Your task to perform on an android device: set default search engine in the chrome app Image 0: 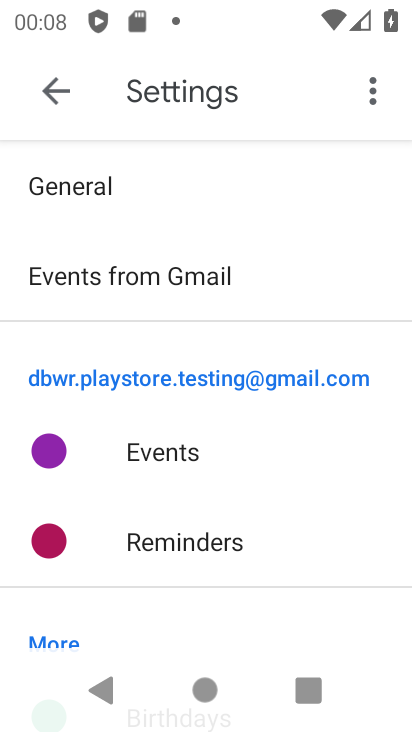
Step 0: click (45, 100)
Your task to perform on an android device: set default search engine in the chrome app Image 1: 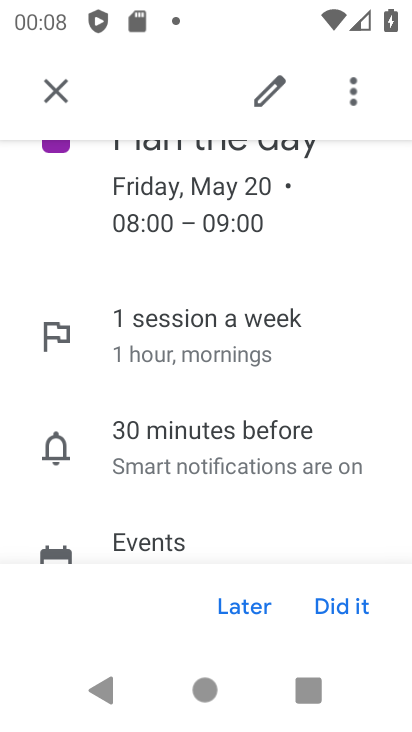
Step 1: press back button
Your task to perform on an android device: set default search engine in the chrome app Image 2: 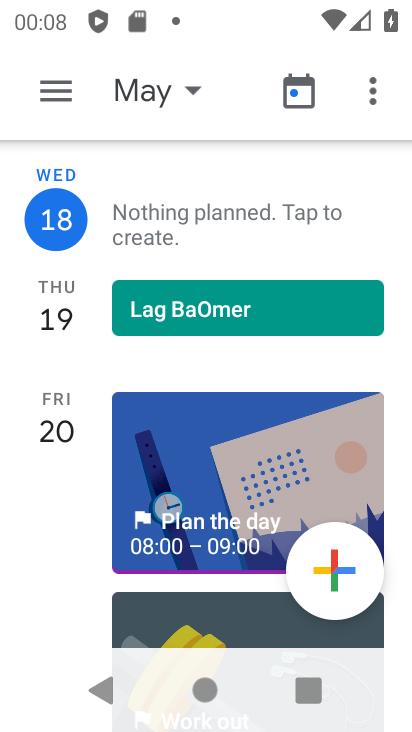
Step 2: press home button
Your task to perform on an android device: set default search engine in the chrome app Image 3: 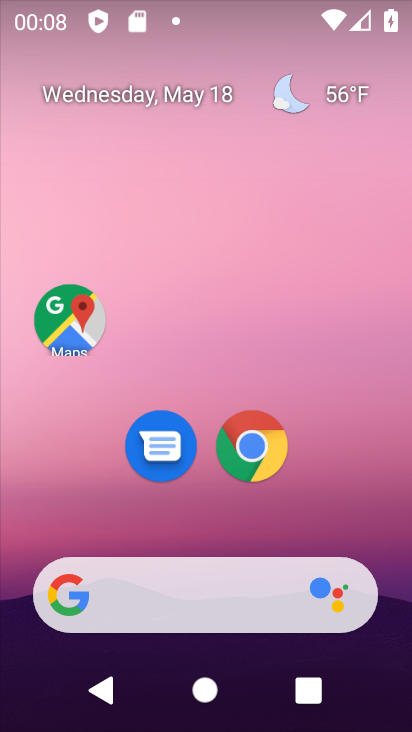
Step 3: drag from (288, 400) to (180, 158)
Your task to perform on an android device: set default search engine in the chrome app Image 4: 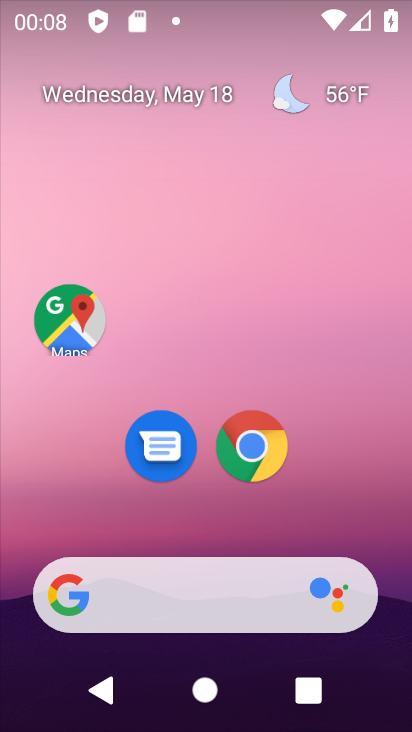
Step 4: drag from (390, 580) to (213, 130)
Your task to perform on an android device: set default search engine in the chrome app Image 5: 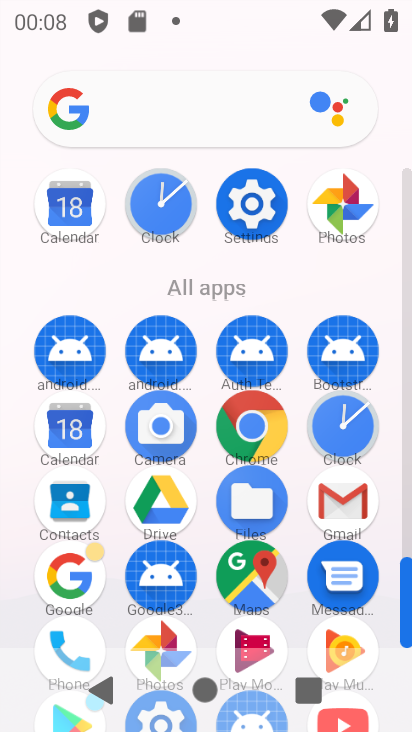
Step 5: click (247, 425)
Your task to perform on an android device: set default search engine in the chrome app Image 6: 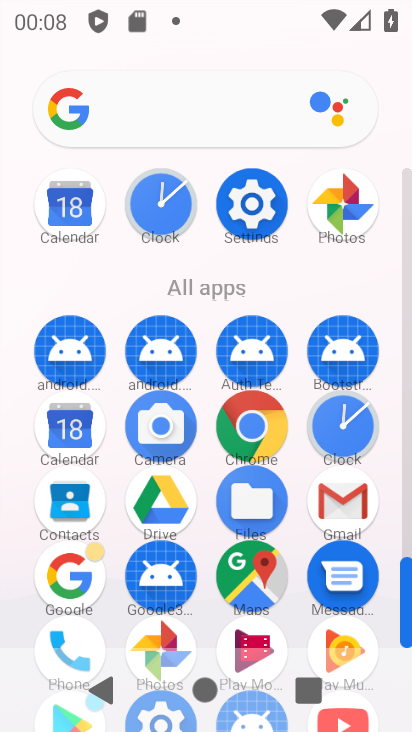
Step 6: click (247, 424)
Your task to perform on an android device: set default search engine in the chrome app Image 7: 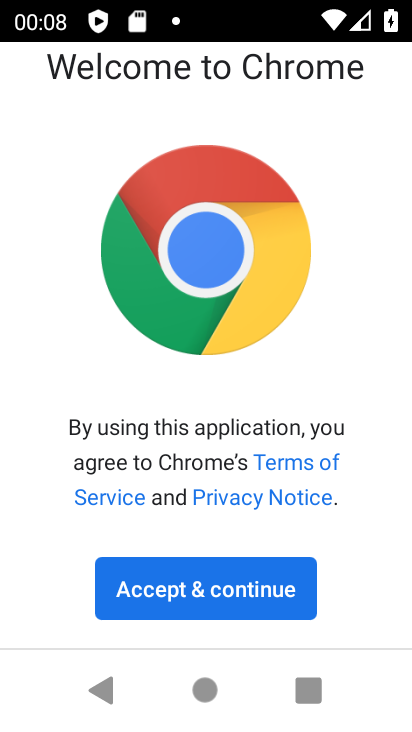
Step 7: click (205, 582)
Your task to perform on an android device: set default search engine in the chrome app Image 8: 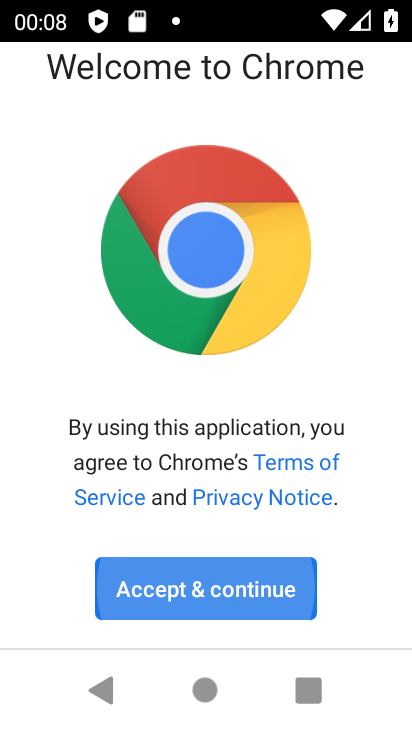
Step 8: click (205, 582)
Your task to perform on an android device: set default search engine in the chrome app Image 9: 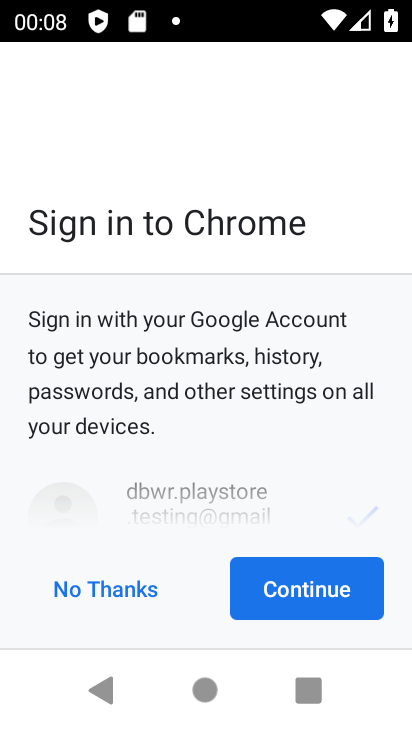
Step 9: click (301, 579)
Your task to perform on an android device: set default search engine in the chrome app Image 10: 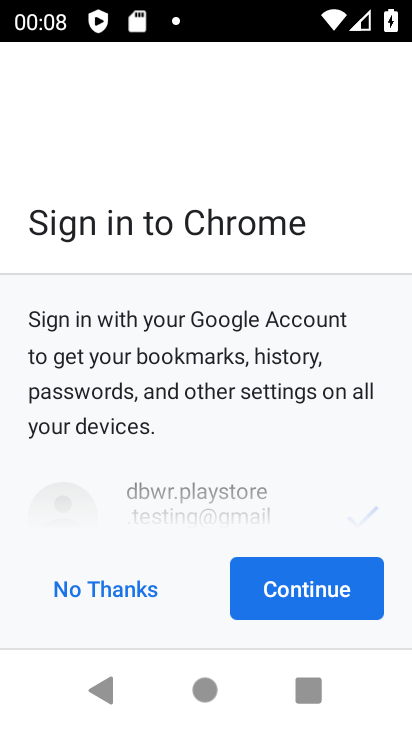
Step 10: click (301, 579)
Your task to perform on an android device: set default search engine in the chrome app Image 11: 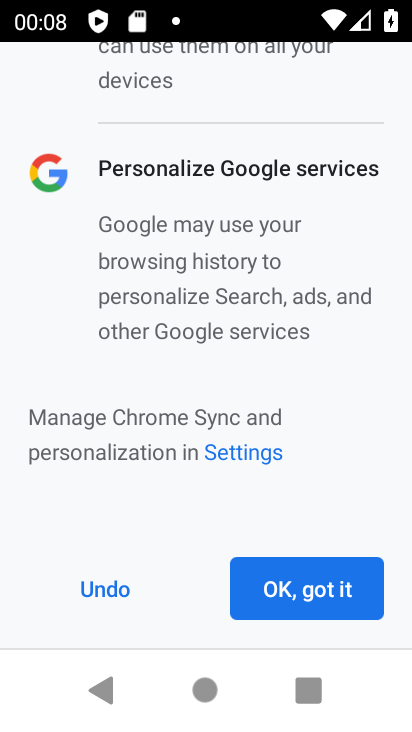
Step 11: click (303, 592)
Your task to perform on an android device: set default search engine in the chrome app Image 12: 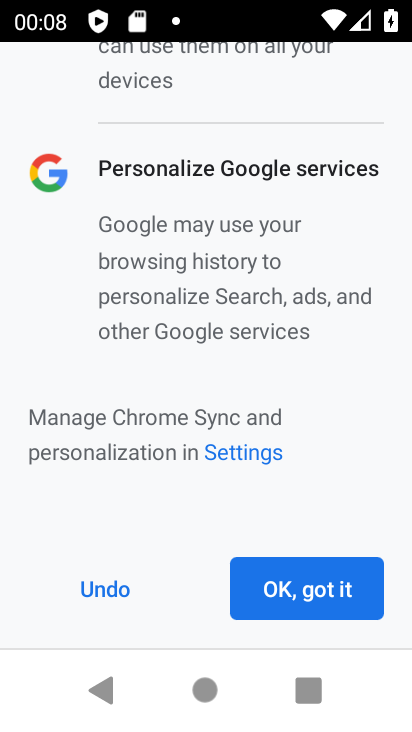
Step 12: click (307, 590)
Your task to perform on an android device: set default search engine in the chrome app Image 13: 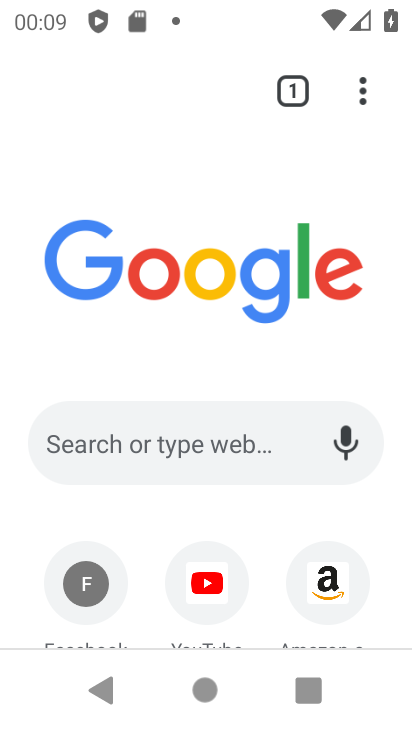
Step 13: click (354, 88)
Your task to perform on an android device: set default search engine in the chrome app Image 14: 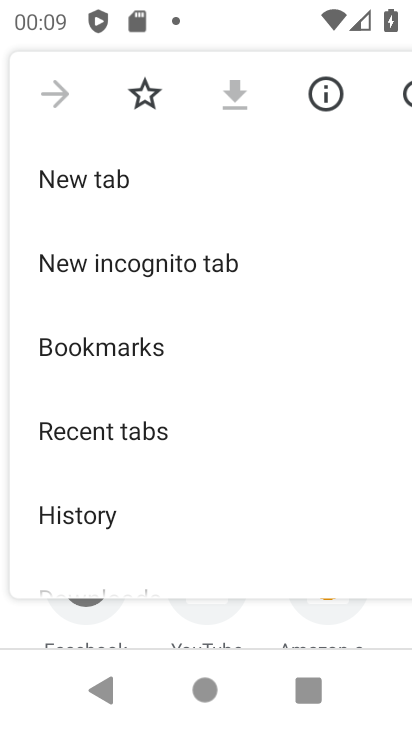
Step 14: drag from (172, 509) to (40, 134)
Your task to perform on an android device: set default search engine in the chrome app Image 15: 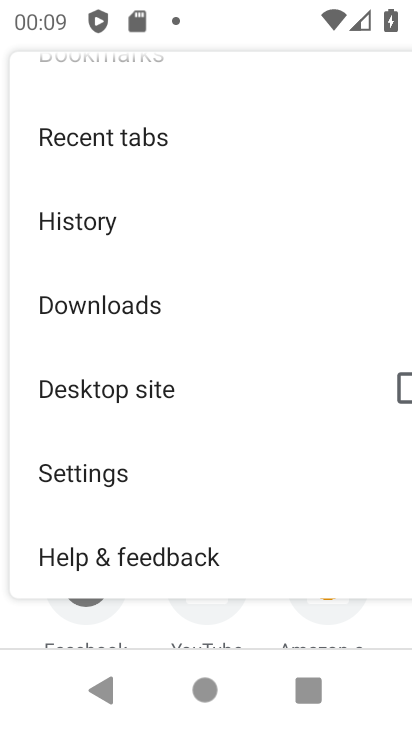
Step 15: click (95, 467)
Your task to perform on an android device: set default search engine in the chrome app Image 16: 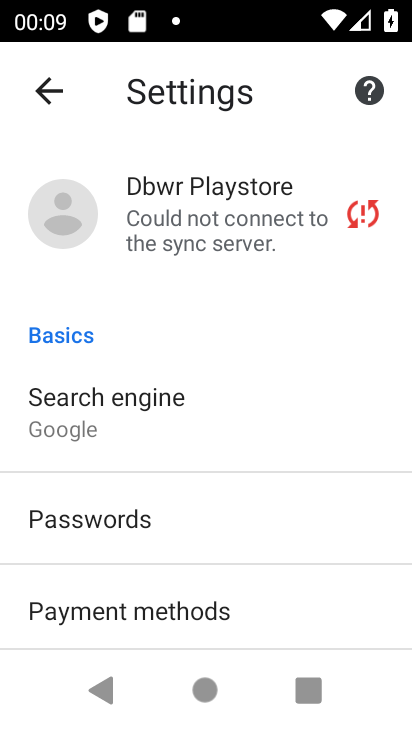
Step 16: click (80, 398)
Your task to perform on an android device: set default search engine in the chrome app Image 17: 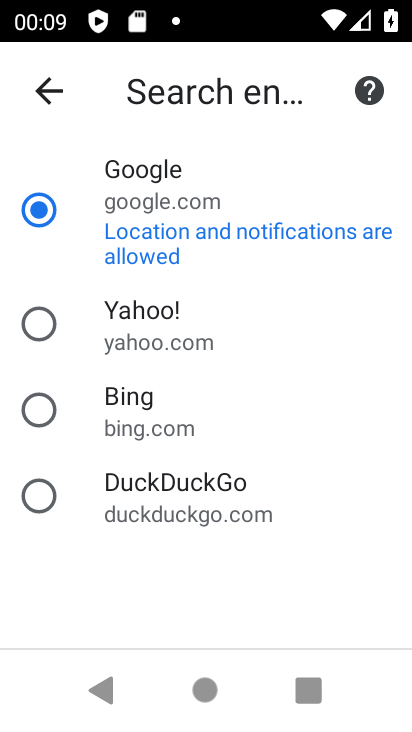
Step 17: click (35, 306)
Your task to perform on an android device: set default search engine in the chrome app Image 18: 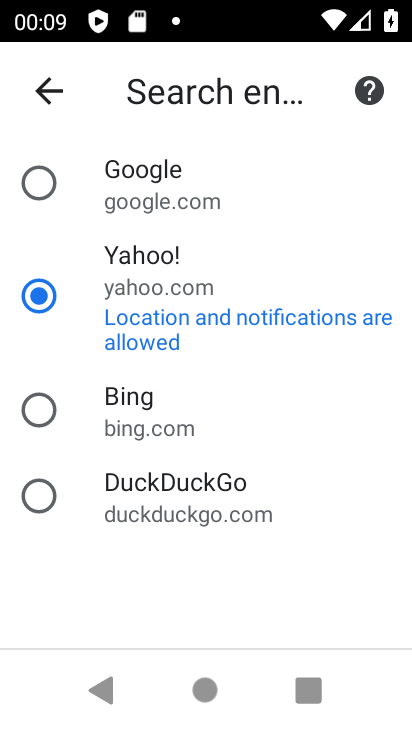
Step 18: task complete